Your task to perform on an android device: Open settings on Google Maps Image 0: 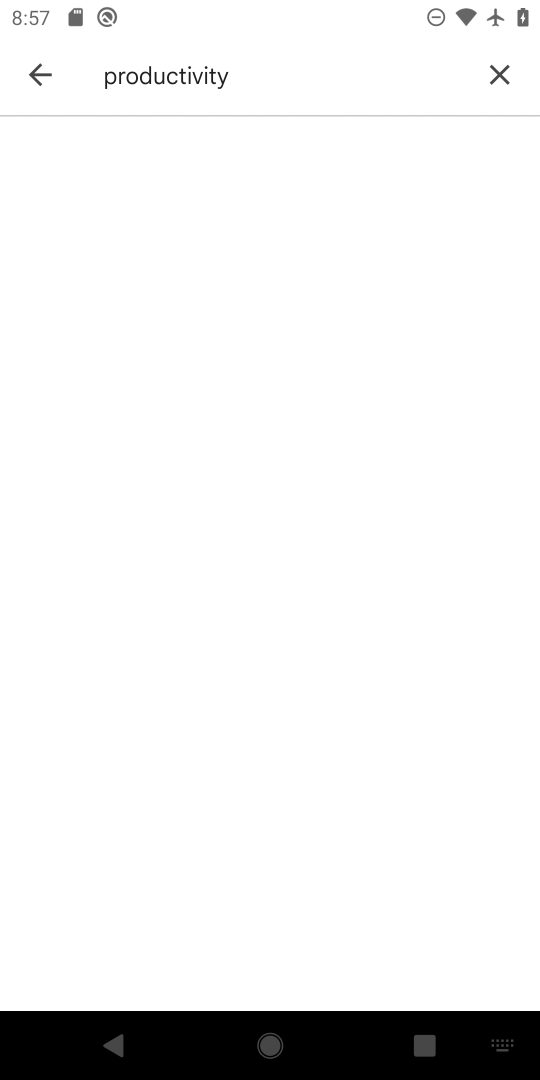
Step 0: press home button
Your task to perform on an android device: Open settings on Google Maps Image 1: 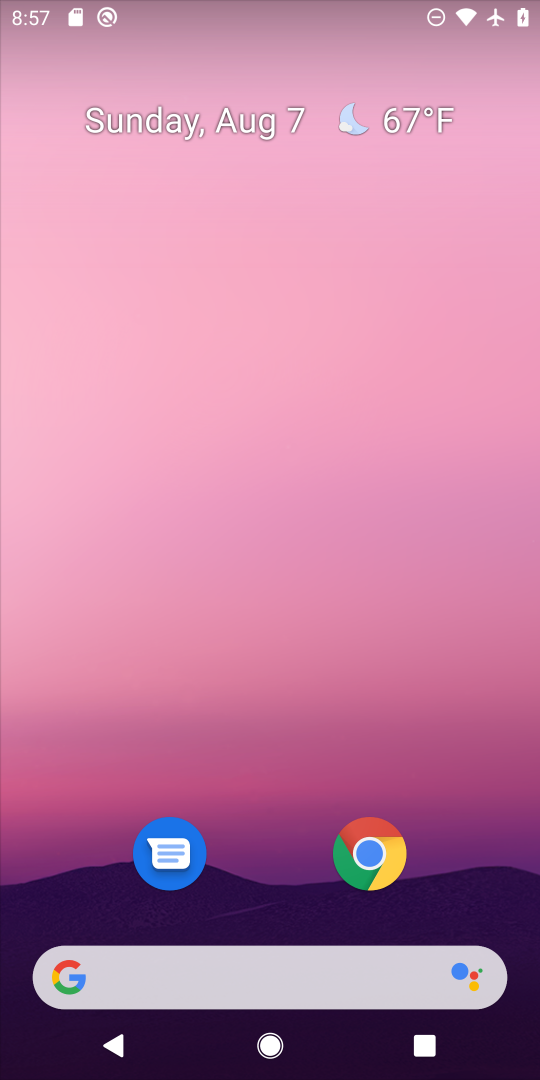
Step 1: drag from (259, 969) to (286, 16)
Your task to perform on an android device: Open settings on Google Maps Image 2: 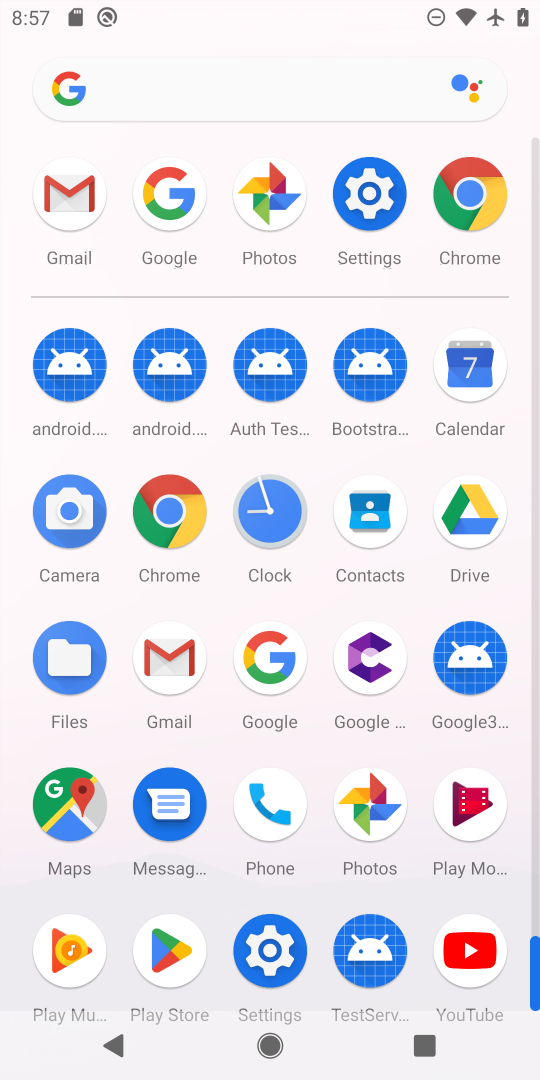
Step 2: click (69, 799)
Your task to perform on an android device: Open settings on Google Maps Image 3: 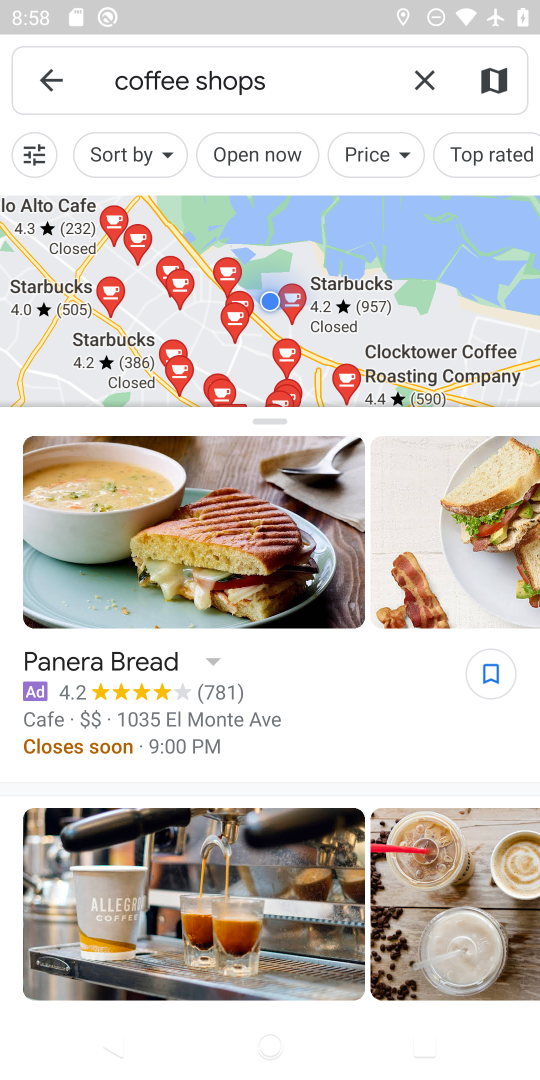
Step 3: click (60, 78)
Your task to perform on an android device: Open settings on Google Maps Image 4: 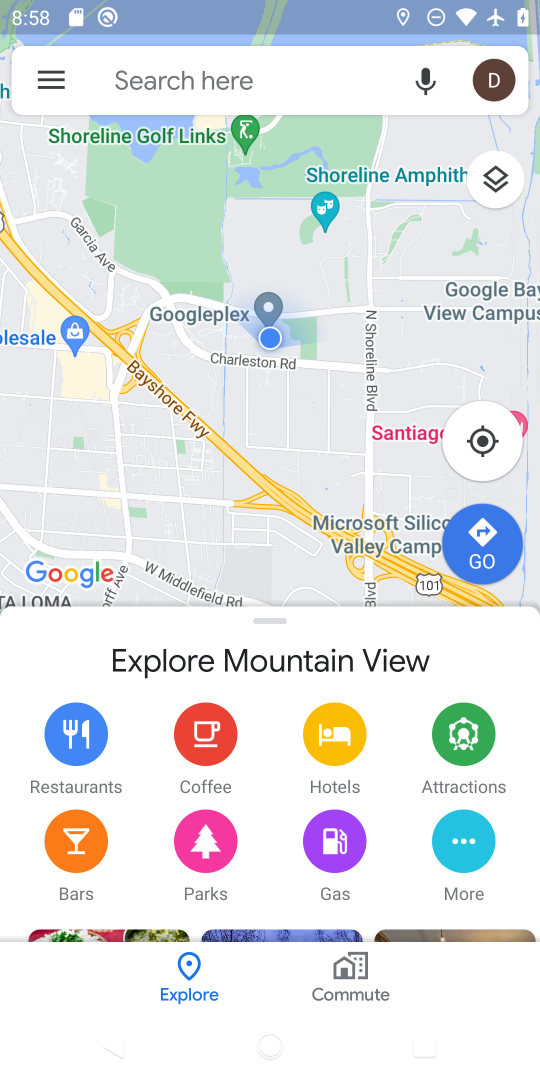
Step 4: click (52, 70)
Your task to perform on an android device: Open settings on Google Maps Image 5: 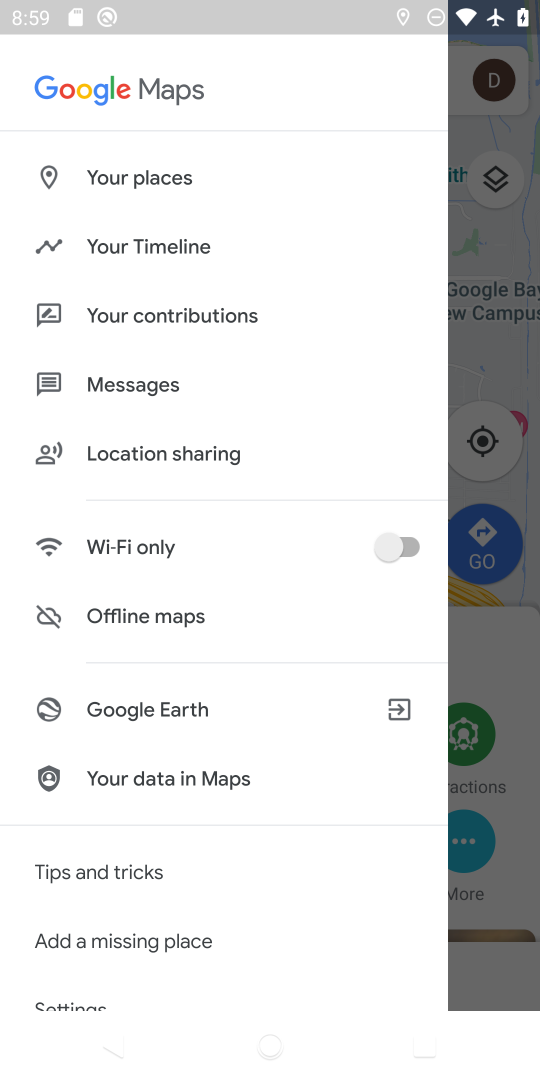
Step 5: drag from (253, 842) to (266, 255)
Your task to perform on an android device: Open settings on Google Maps Image 6: 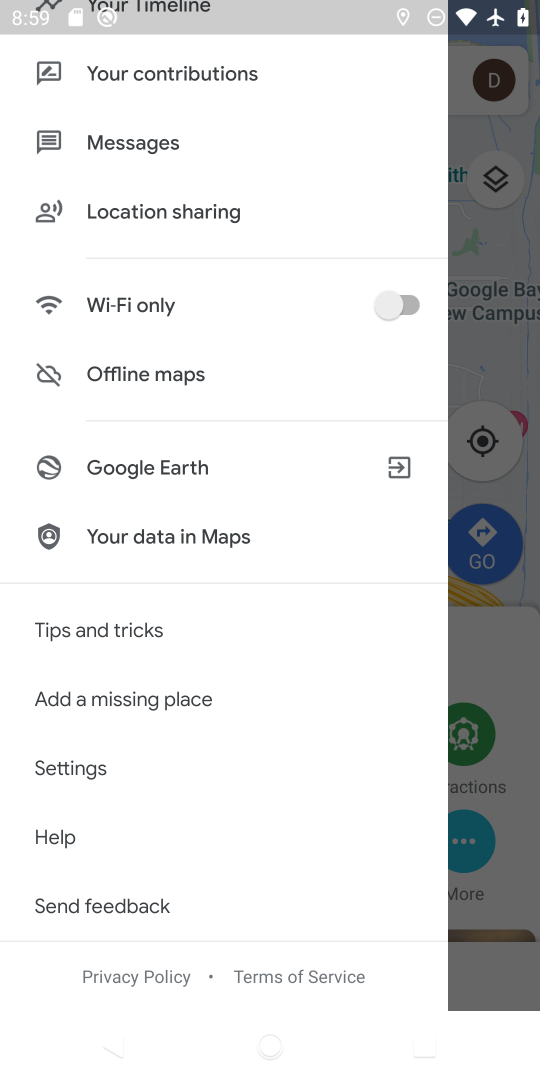
Step 6: click (80, 773)
Your task to perform on an android device: Open settings on Google Maps Image 7: 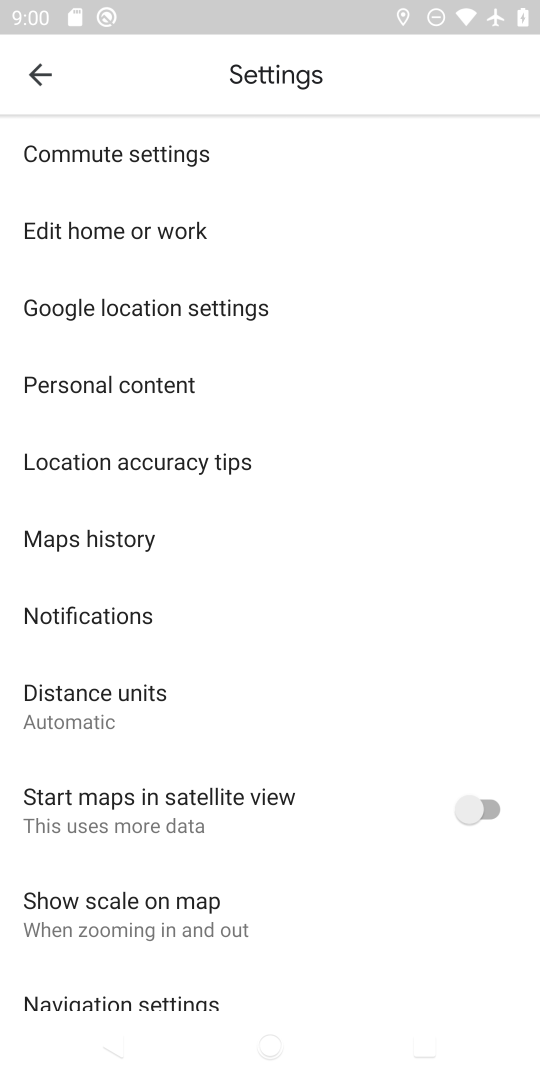
Step 7: task complete